Your task to perform on an android device: turn off picture-in-picture Image 0: 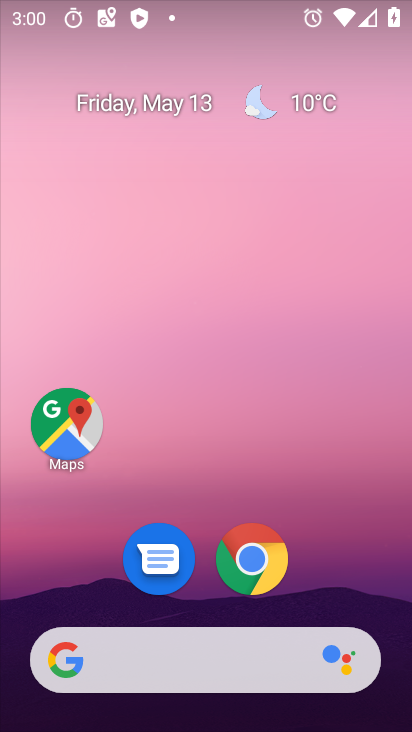
Step 0: click (262, 560)
Your task to perform on an android device: turn off picture-in-picture Image 1: 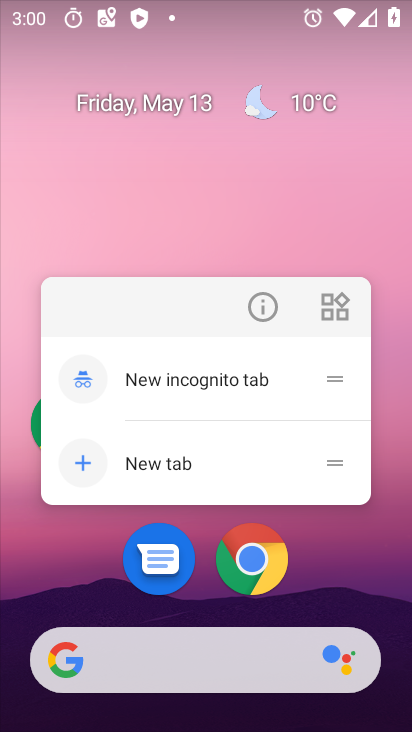
Step 1: click (265, 306)
Your task to perform on an android device: turn off picture-in-picture Image 2: 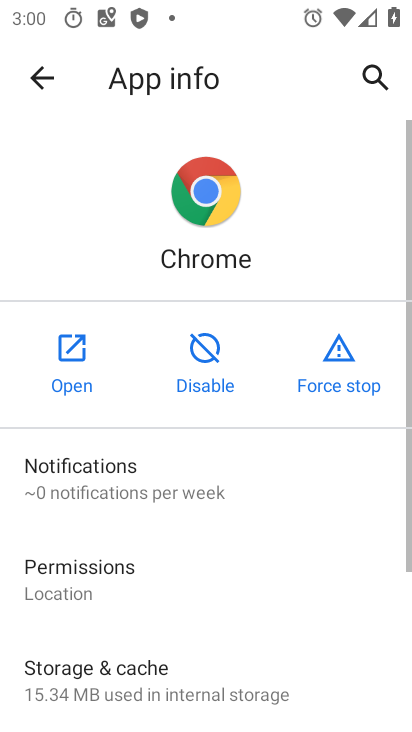
Step 2: drag from (246, 682) to (230, 339)
Your task to perform on an android device: turn off picture-in-picture Image 3: 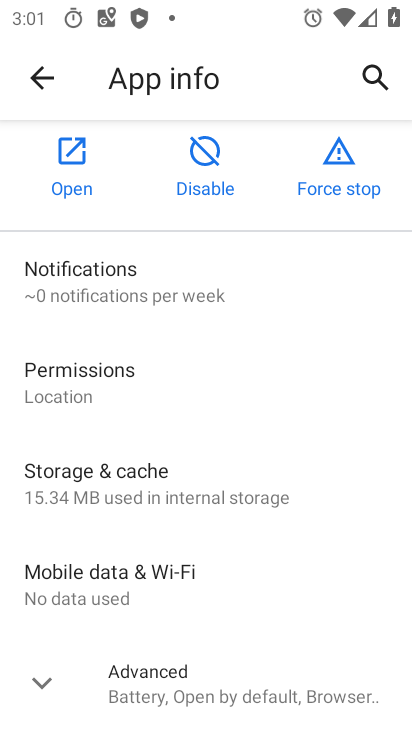
Step 3: drag from (257, 667) to (260, 433)
Your task to perform on an android device: turn off picture-in-picture Image 4: 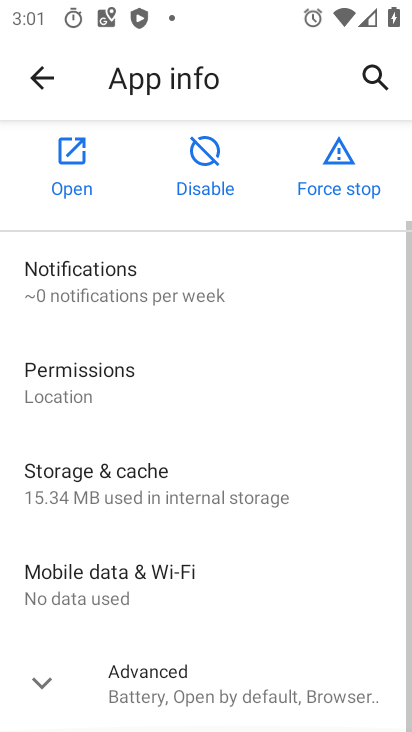
Step 4: click (197, 687)
Your task to perform on an android device: turn off picture-in-picture Image 5: 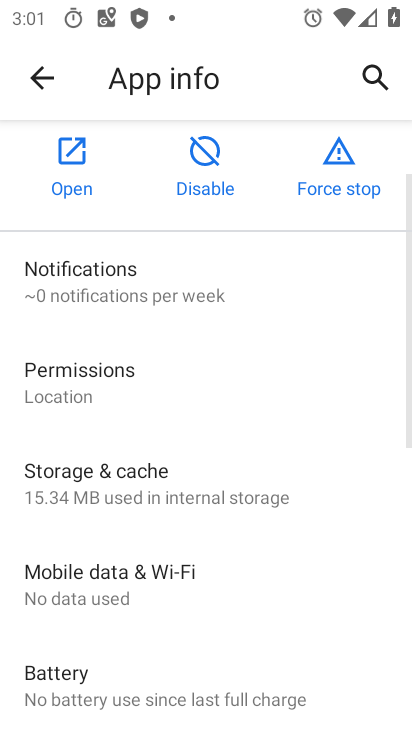
Step 5: drag from (206, 661) to (251, 354)
Your task to perform on an android device: turn off picture-in-picture Image 6: 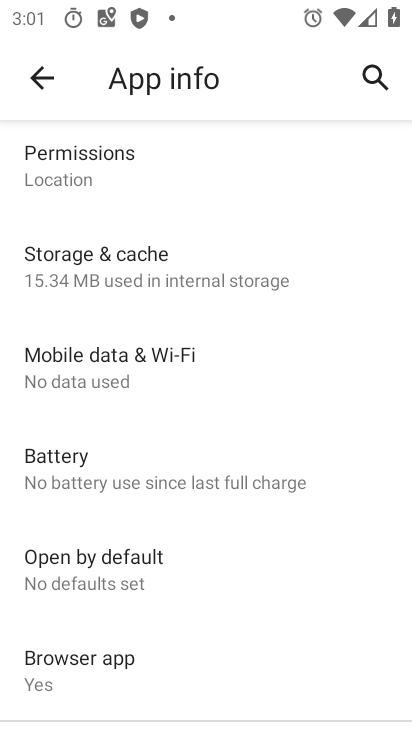
Step 6: drag from (200, 577) to (177, 322)
Your task to perform on an android device: turn off picture-in-picture Image 7: 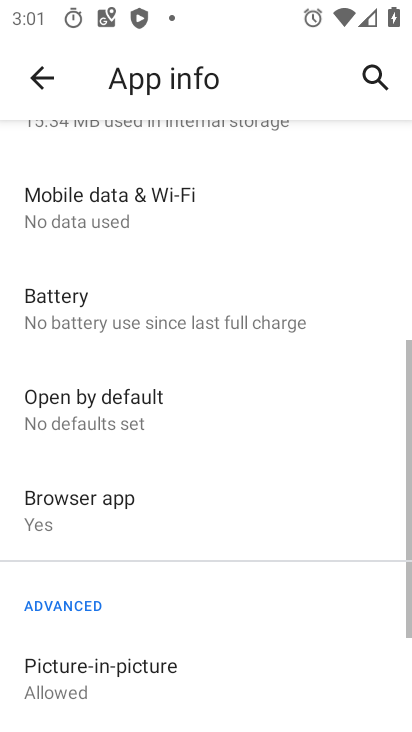
Step 7: drag from (162, 642) to (192, 374)
Your task to perform on an android device: turn off picture-in-picture Image 8: 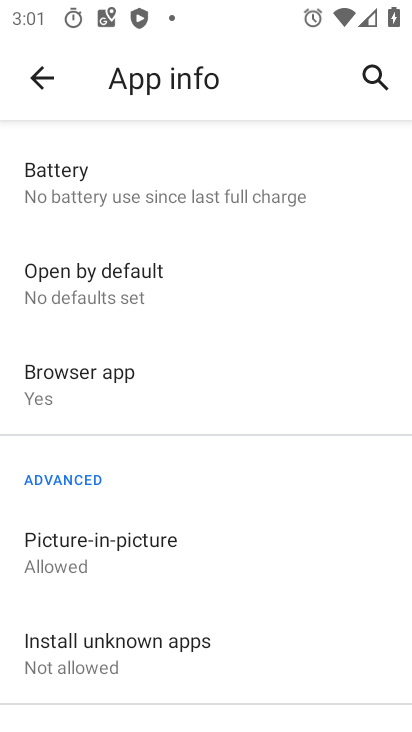
Step 8: click (127, 540)
Your task to perform on an android device: turn off picture-in-picture Image 9: 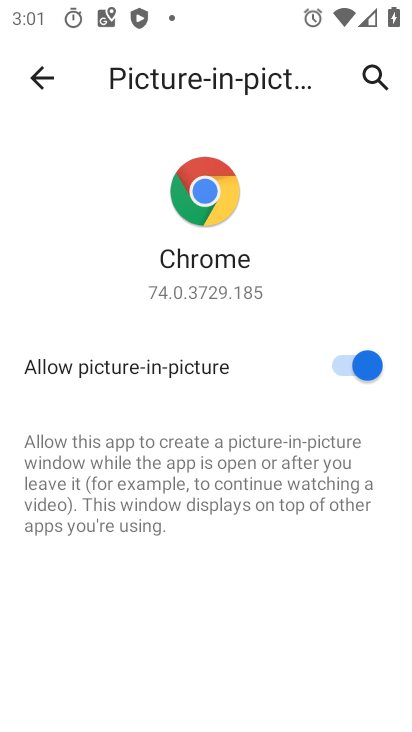
Step 9: click (335, 367)
Your task to perform on an android device: turn off picture-in-picture Image 10: 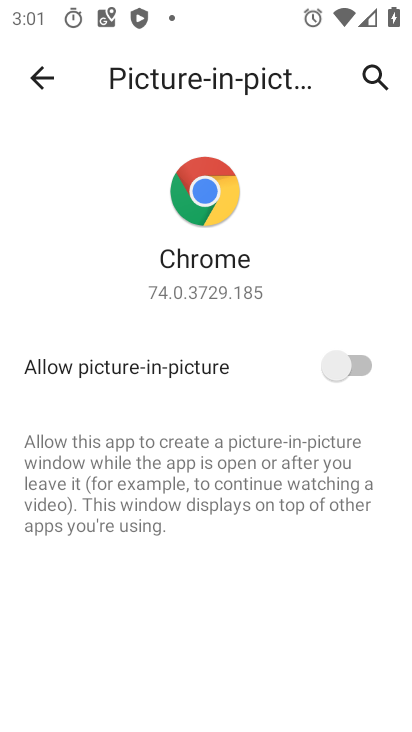
Step 10: task complete